Your task to perform on an android device: install app "Pinterest" Image 0: 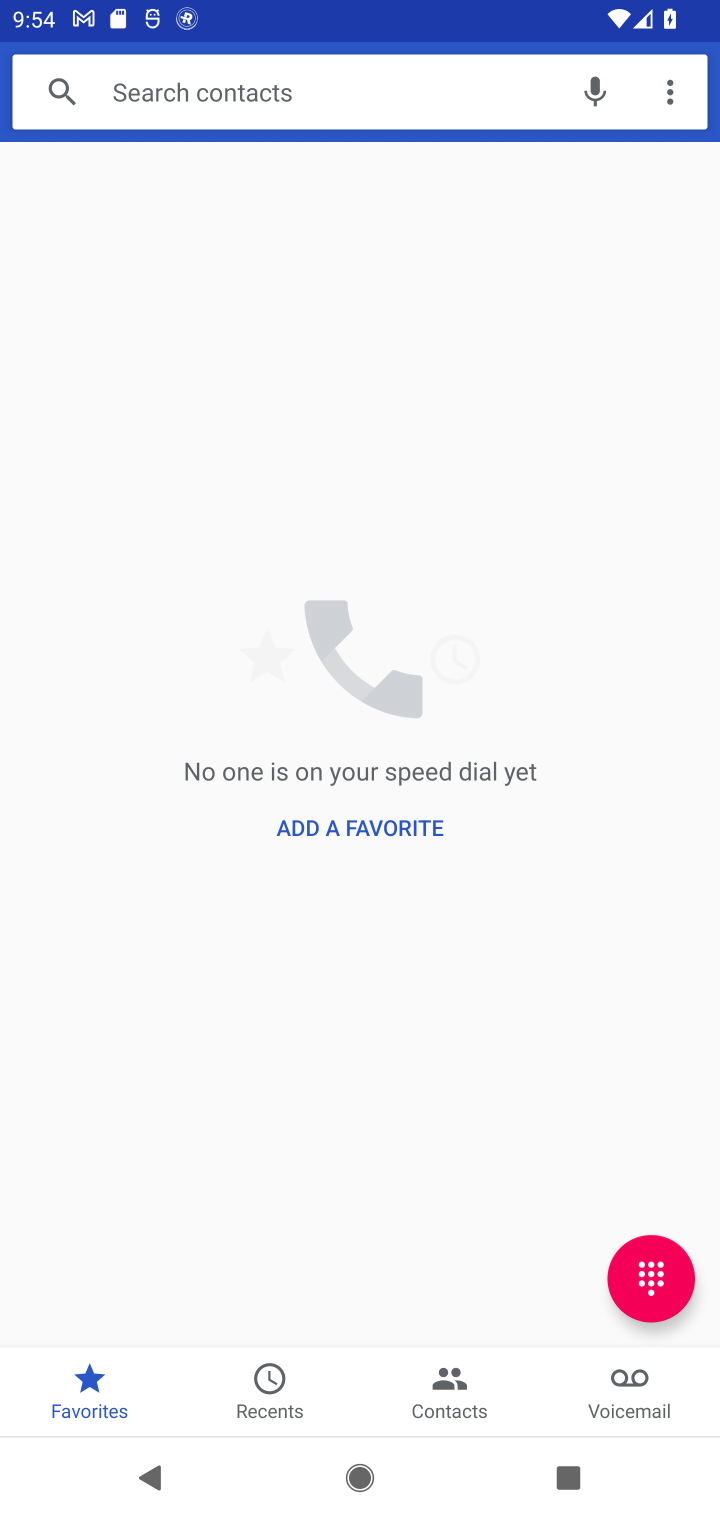
Step 0: press home button
Your task to perform on an android device: install app "Pinterest" Image 1: 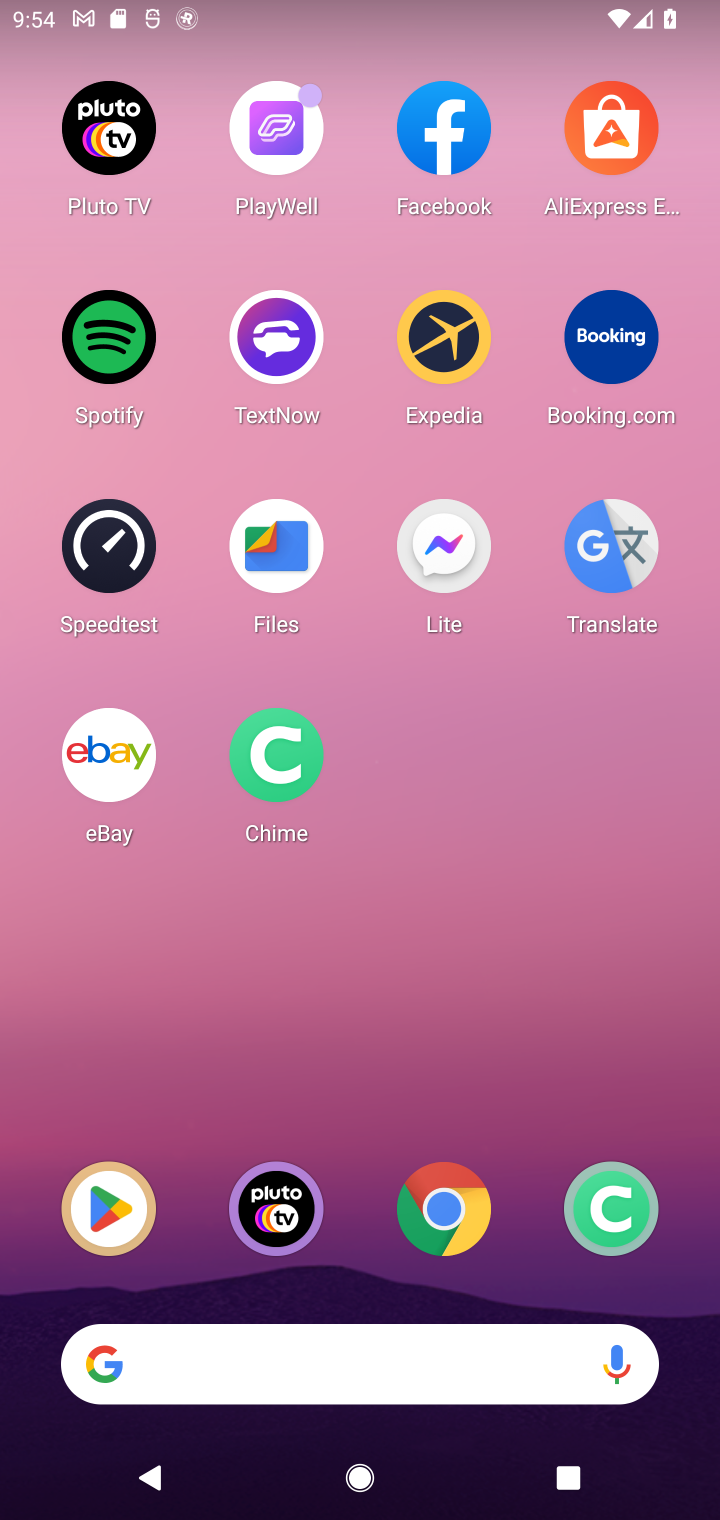
Step 1: drag from (330, 1333) to (414, 133)
Your task to perform on an android device: install app "Pinterest" Image 2: 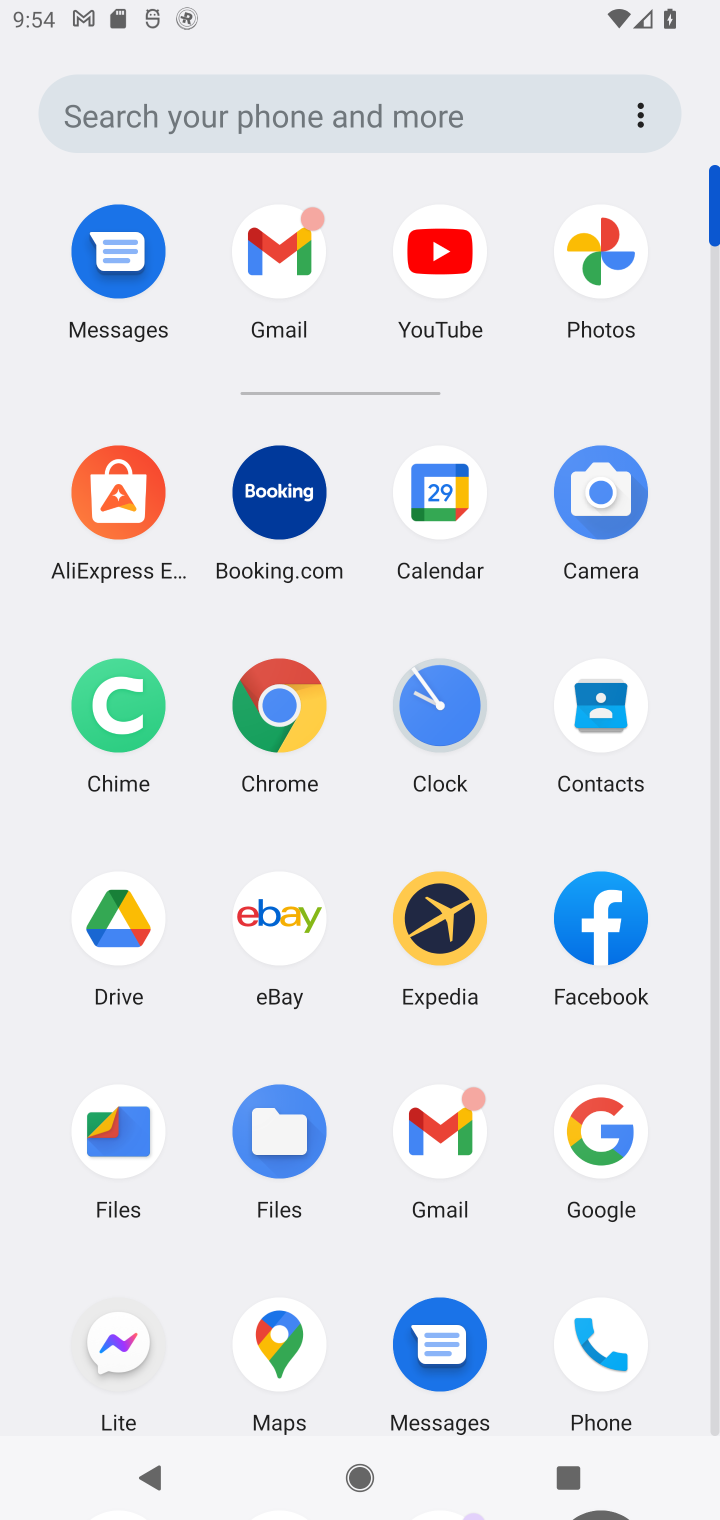
Step 2: drag from (352, 1249) to (404, 732)
Your task to perform on an android device: install app "Pinterest" Image 3: 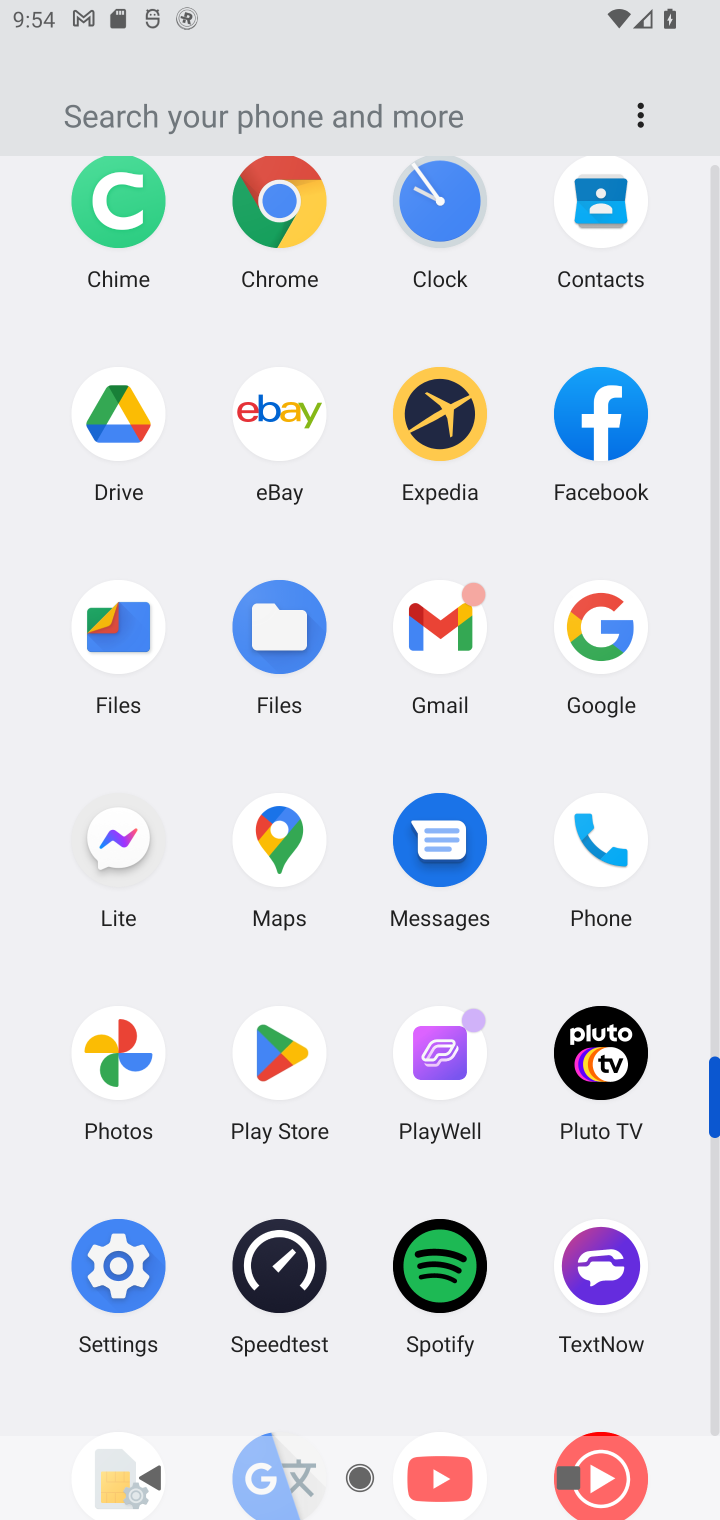
Step 3: click (272, 1060)
Your task to perform on an android device: install app "Pinterest" Image 4: 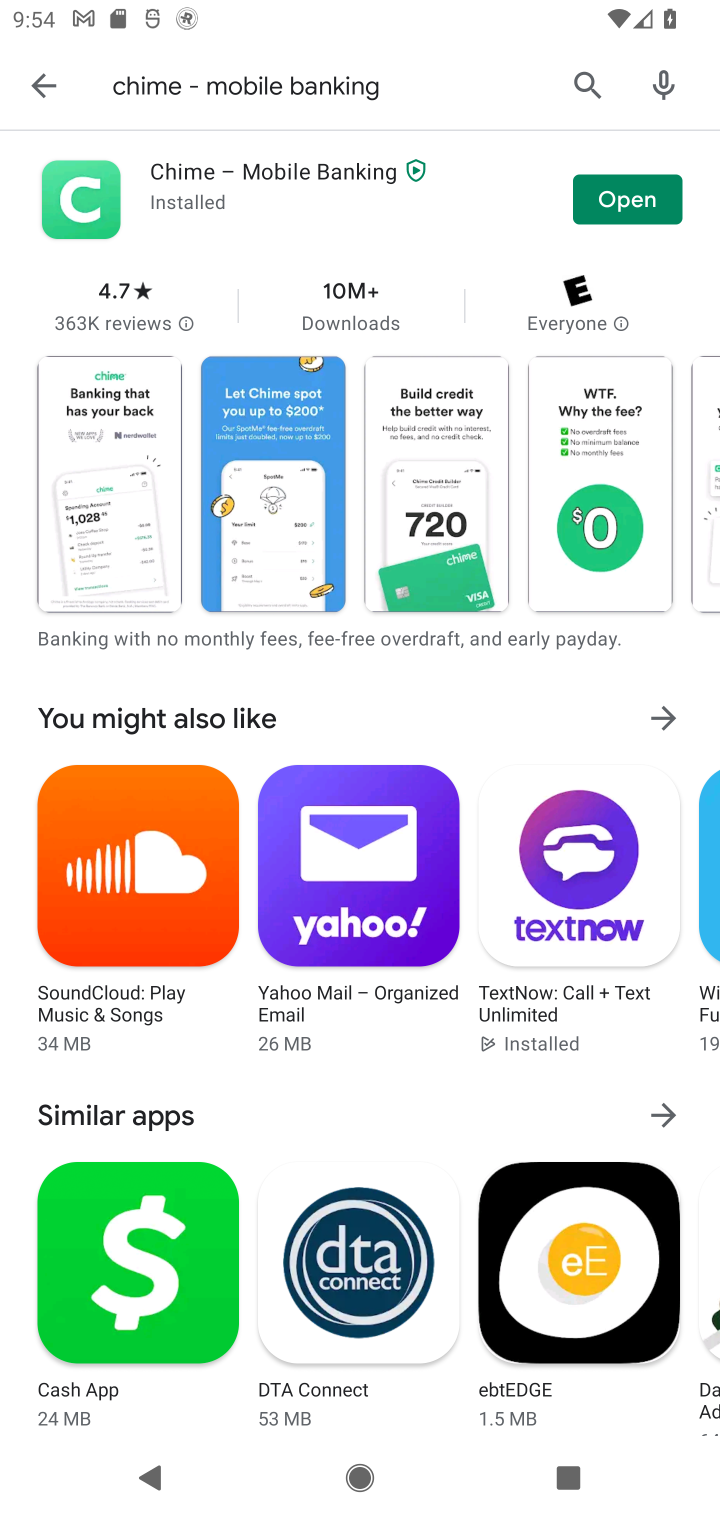
Step 4: click (585, 82)
Your task to perform on an android device: install app "Pinterest" Image 5: 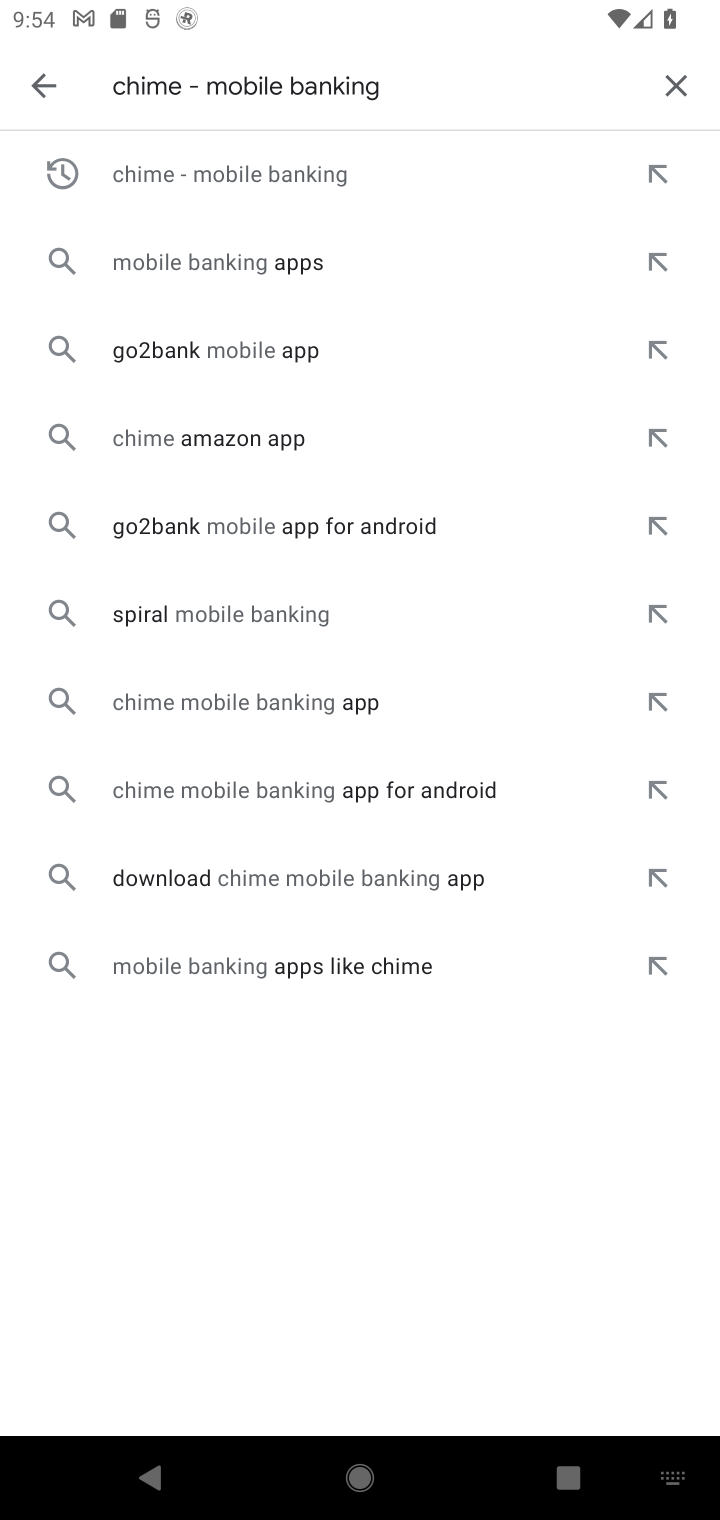
Step 5: click (677, 88)
Your task to perform on an android device: install app "Pinterest" Image 6: 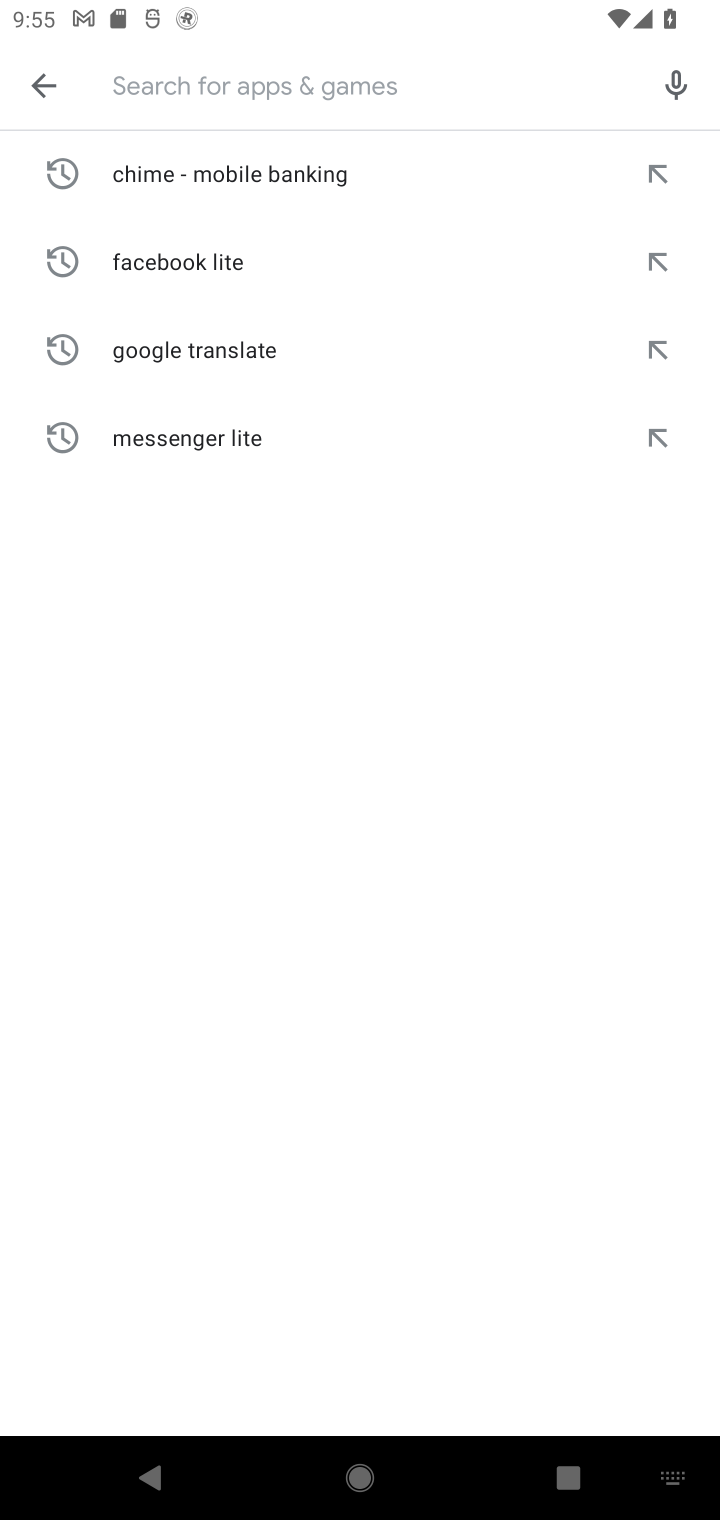
Step 6: type "Pinterest"
Your task to perform on an android device: install app "Pinterest" Image 7: 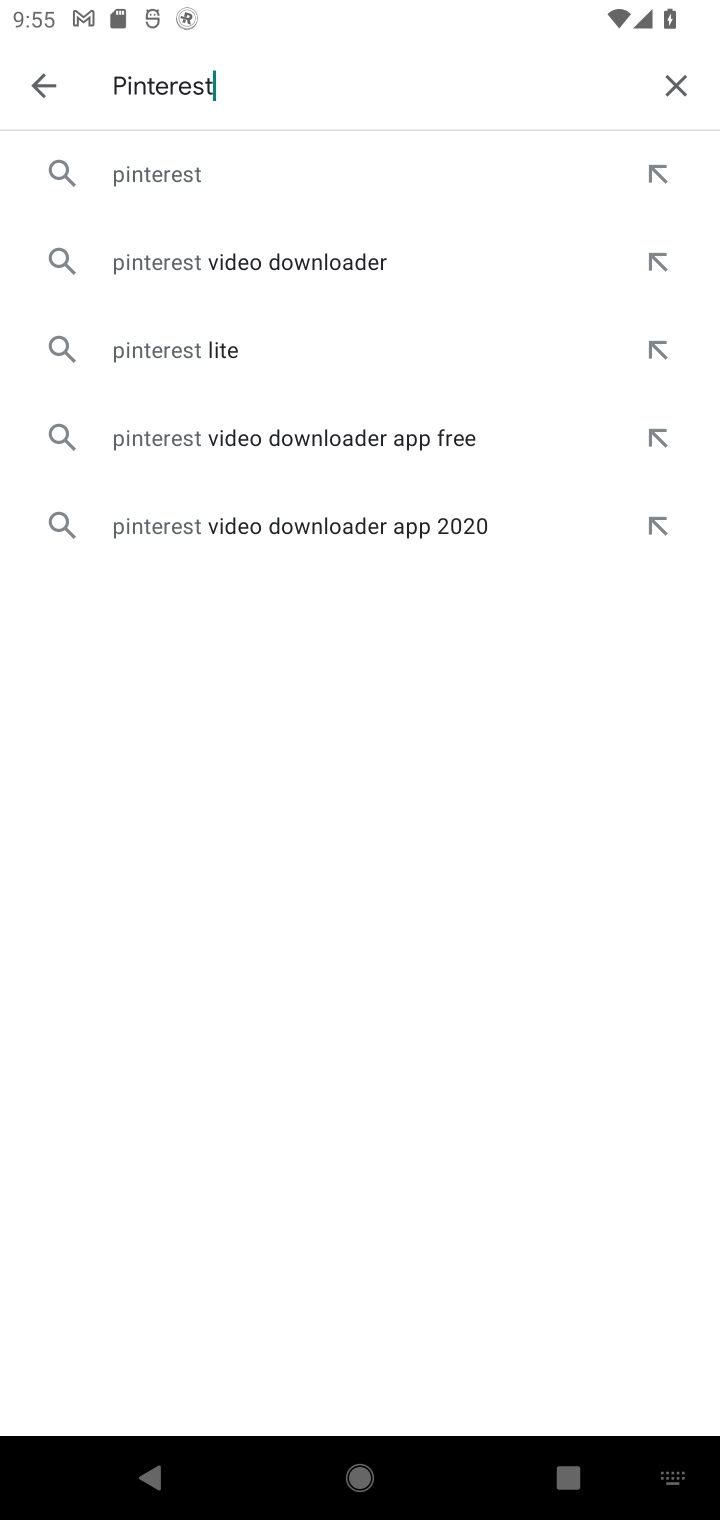
Step 7: click (180, 179)
Your task to perform on an android device: install app "Pinterest" Image 8: 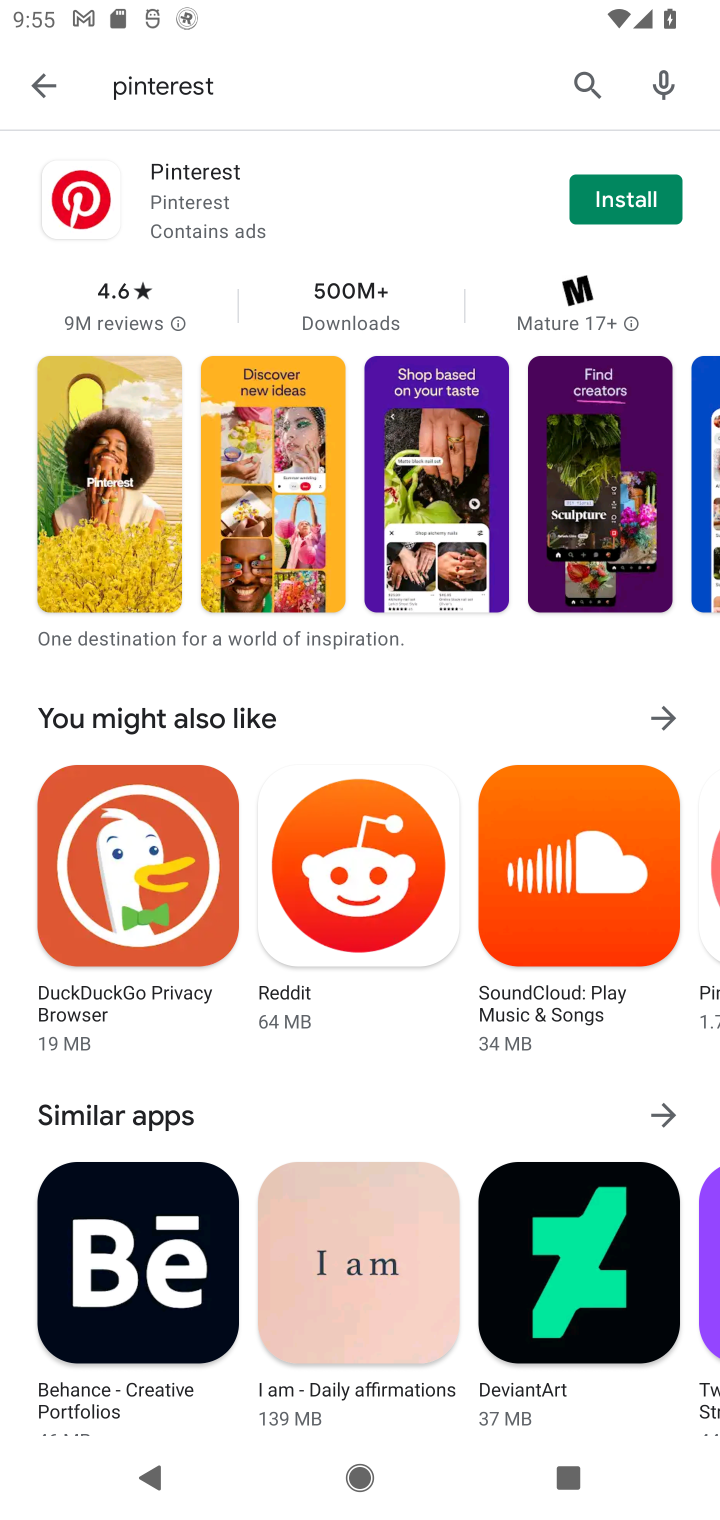
Step 8: click (636, 200)
Your task to perform on an android device: install app "Pinterest" Image 9: 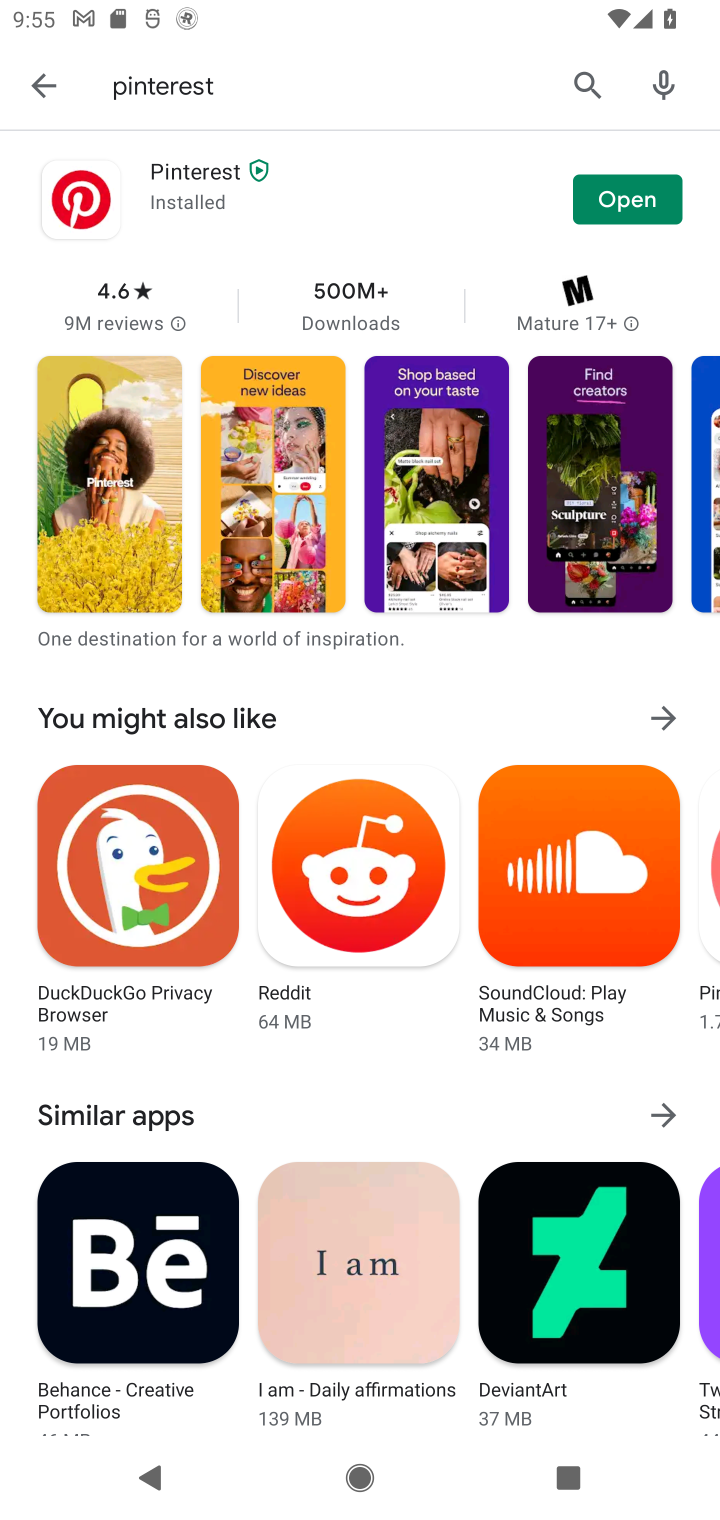
Step 9: task complete